Your task to perform on an android device: change notification settings in the gmail app Image 0: 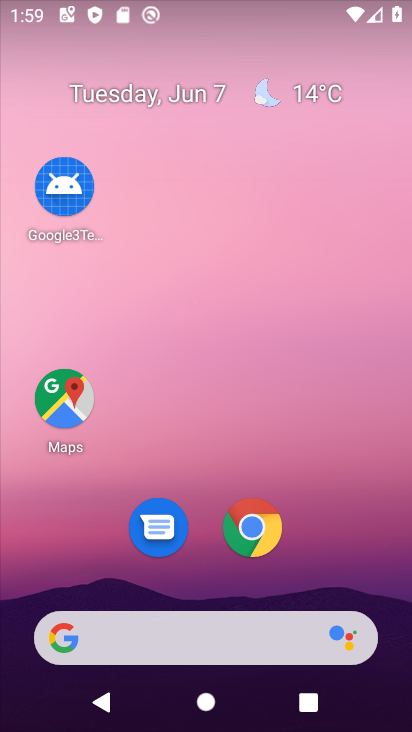
Step 0: drag from (328, 557) to (277, 219)
Your task to perform on an android device: change notification settings in the gmail app Image 1: 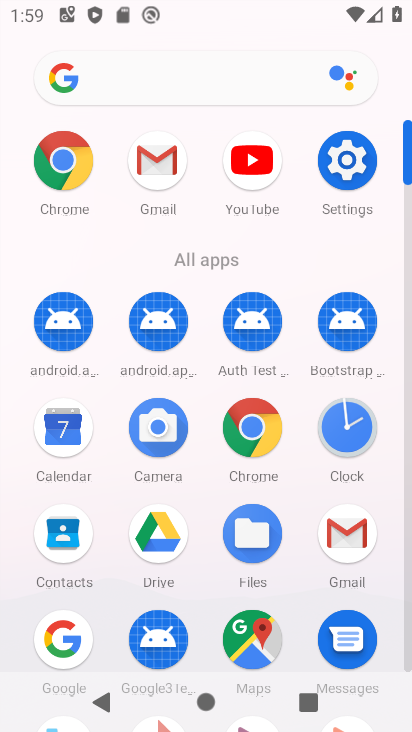
Step 1: click (356, 531)
Your task to perform on an android device: change notification settings in the gmail app Image 2: 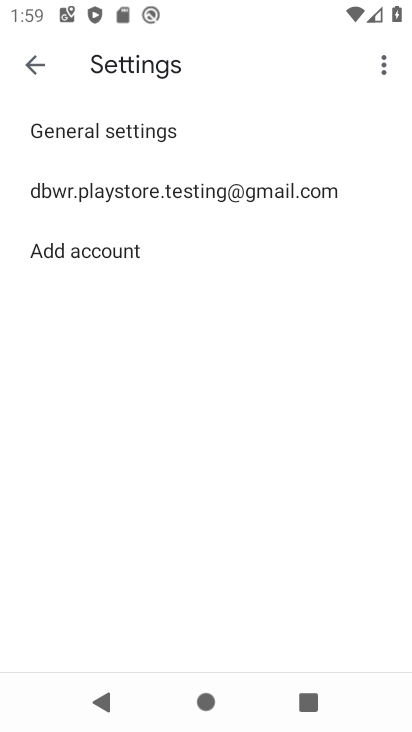
Step 2: click (23, 62)
Your task to perform on an android device: change notification settings in the gmail app Image 3: 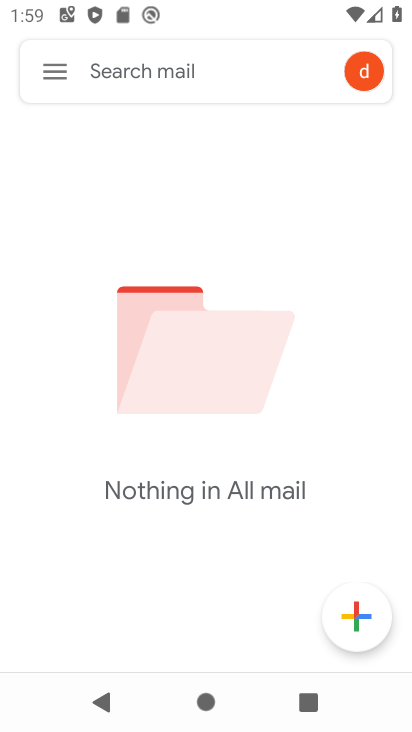
Step 3: click (53, 67)
Your task to perform on an android device: change notification settings in the gmail app Image 4: 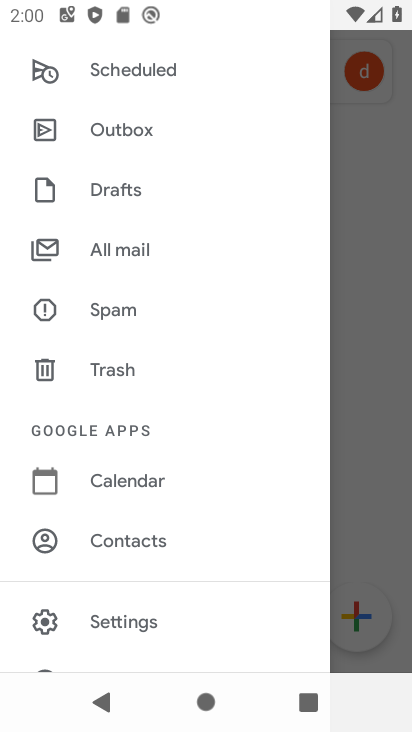
Step 4: click (154, 614)
Your task to perform on an android device: change notification settings in the gmail app Image 5: 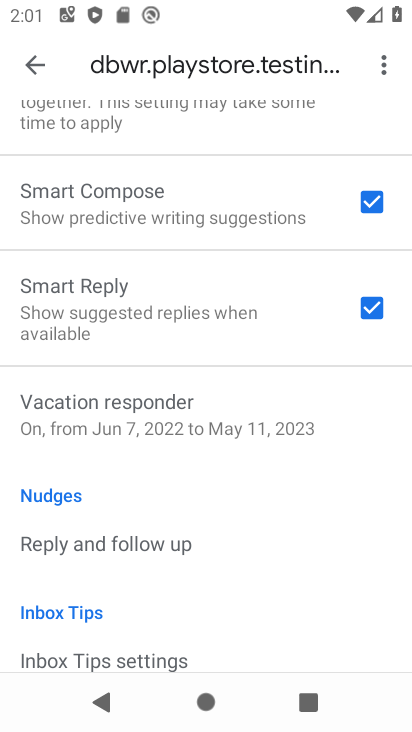
Step 5: drag from (237, 630) to (314, 154)
Your task to perform on an android device: change notification settings in the gmail app Image 6: 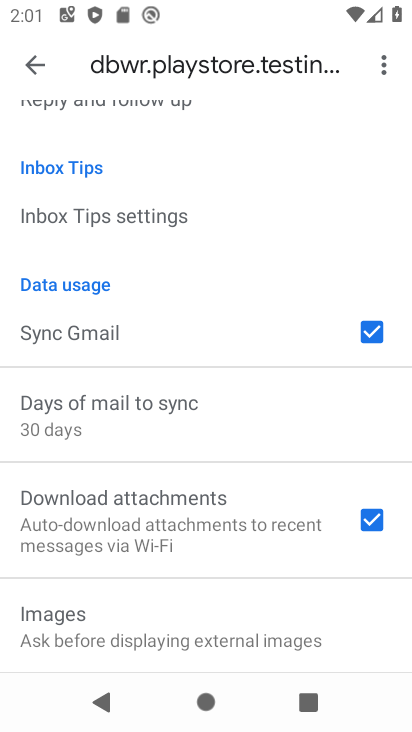
Step 6: drag from (168, 541) to (254, 144)
Your task to perform on an android device: change notification settings in the gmail app Image 7: 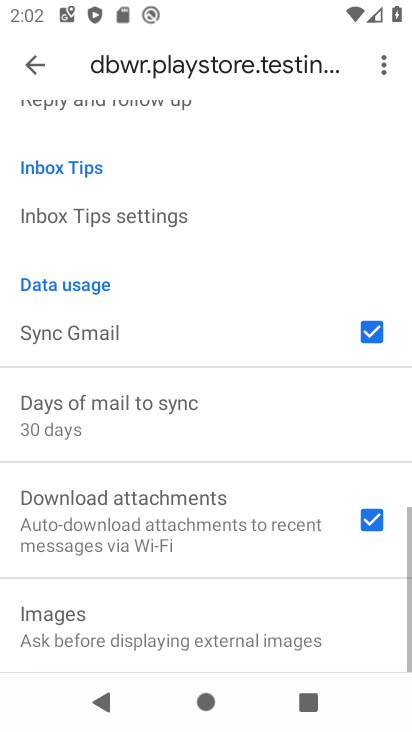
Step 7: drag from (262, 218) to (127, 679)
Your task to perform on an android device: change notification settings in the gmail app Image 8: 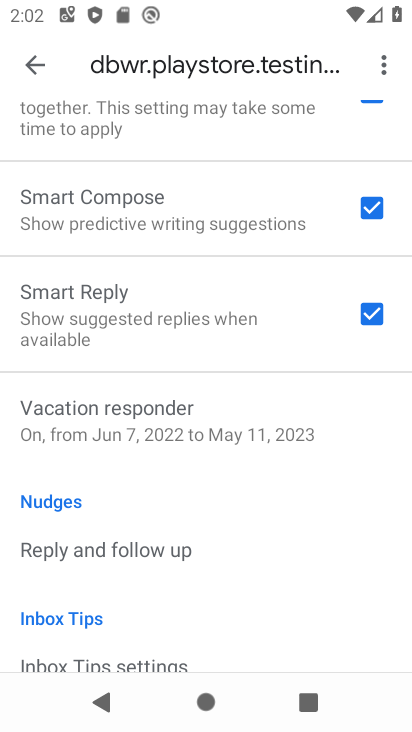
Step 8: drag from (304, 222) to (228, 639)
Your task to perform on an android device: change notification settings in the gmail app Image 9: 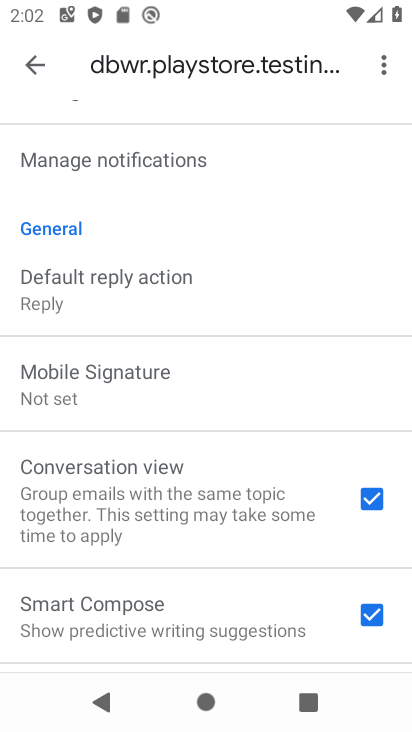
Step 9: click (154, 167)
Your task to perform on an android device: change notification settings in the gmail app Image 10: 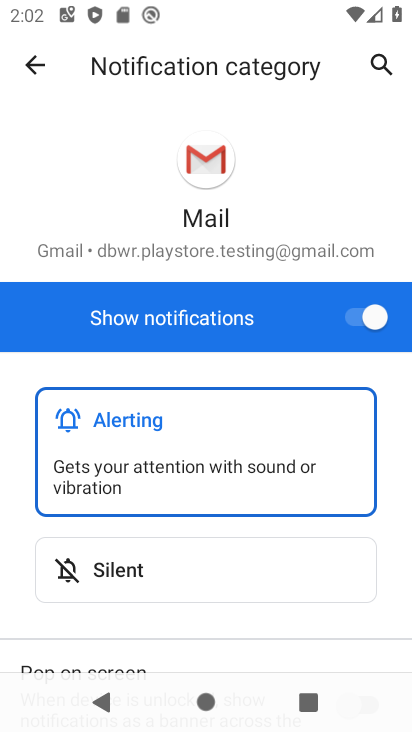
Step 10: drag from (315, 585) to (354, 125)
Your task to perform on an android device: change notification settings in the gmail app Image 11: 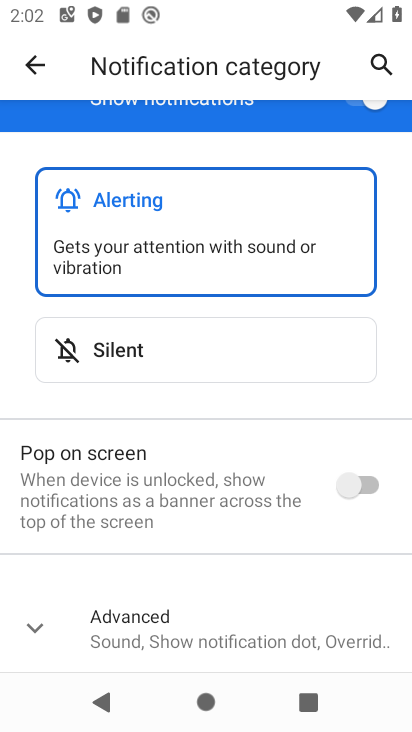
Step 11: drag from (252, 176) to (213, 662)
Your task to perform on an android device: change notification settings in the gmail app Image 12: 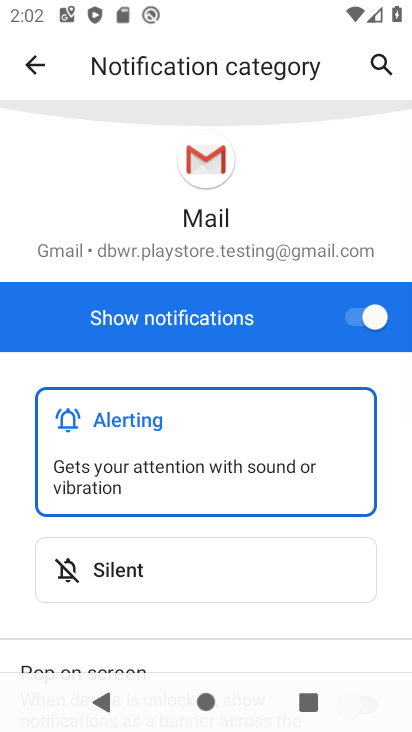
Step 12: drag from (213, 662) to (215, 599)
Your task to perform on an android device: change notification settings in the gmail app Image 13: 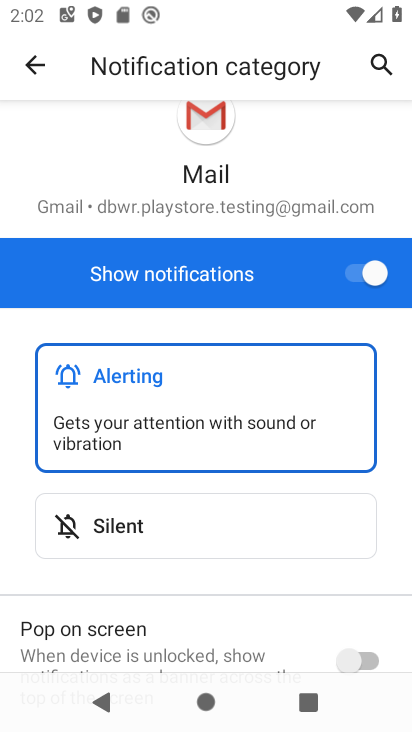
Step 13: click (360, 269)
Your task to perform on an android device: change notification settings in the gmail app Image 14: 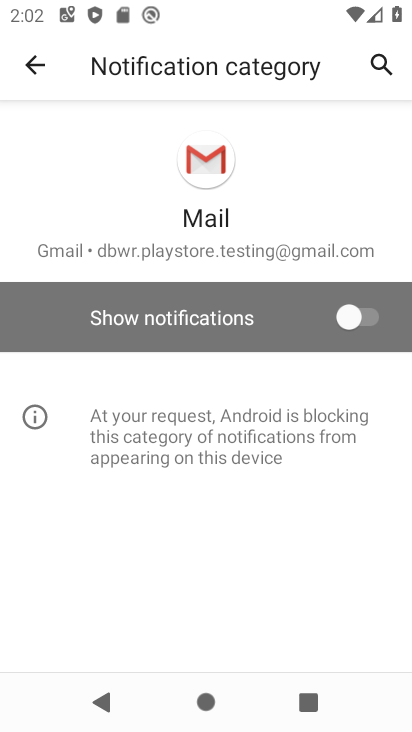
Step 14: task complete